Your task to perform on an android device: snooze an email in the gmail app Image 0: 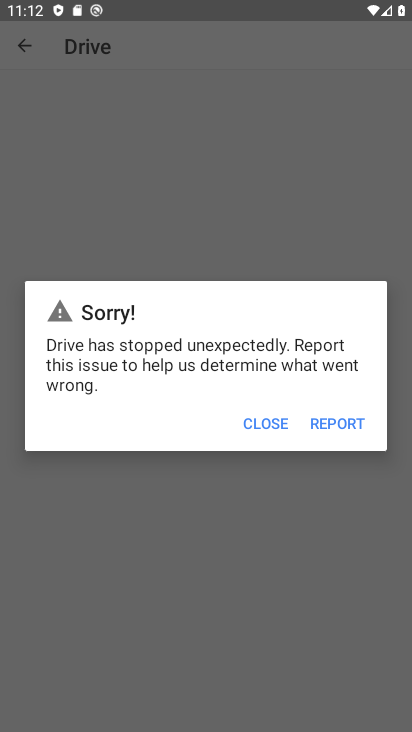
Step 0: click (276, 411)
Your task to perform on an android device: snooze an email in the gmail app Image 1: 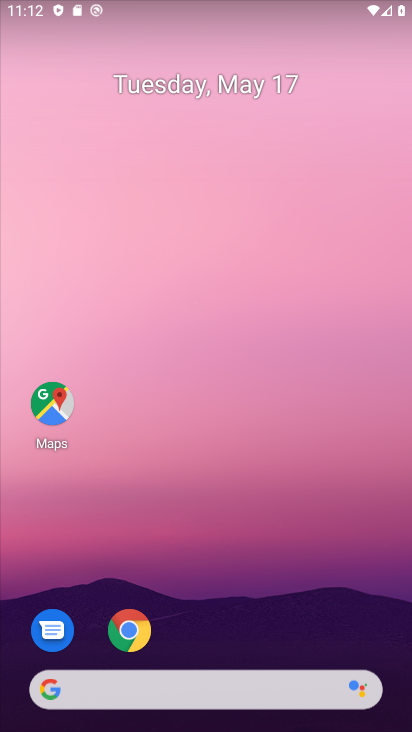
Step 1: drag from (206, 649) to (299, 71)
Your task to perform on an android device: snooze an email in the gmail app Image 2: 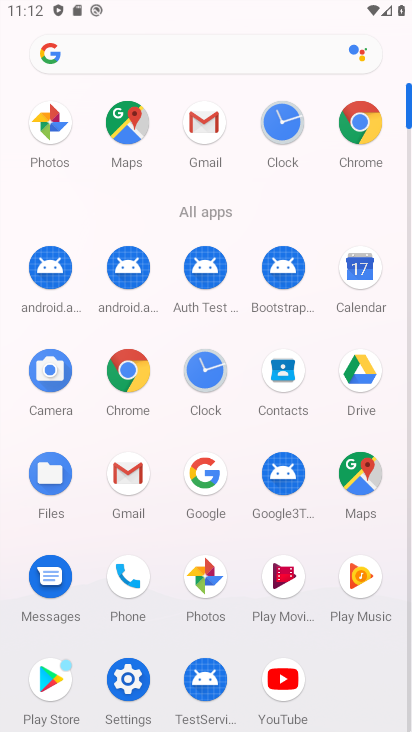
Step 2: click (132, 479)
Your task to perform on an android device: snooze an email in the gmail app Image 3: 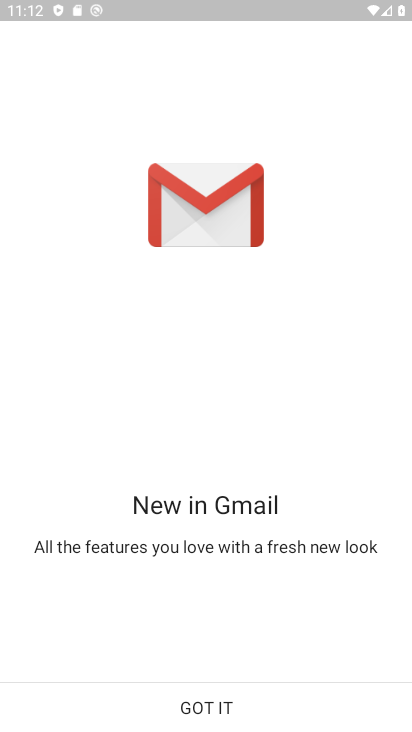
Step 3: click (189, 712)
Your task to perform on an android device: snooze an email in the gmail app Image 4: 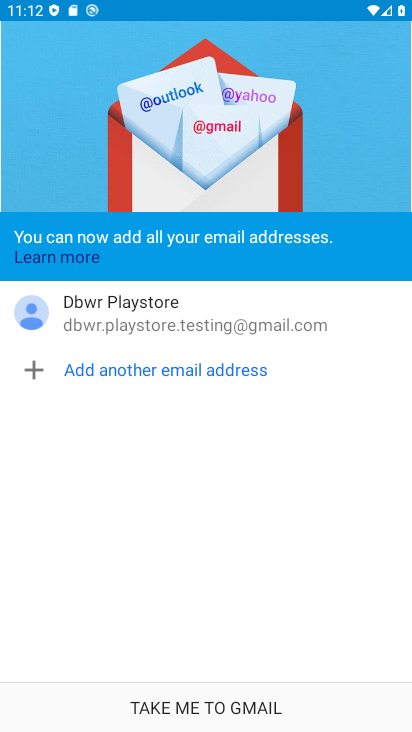
Step 4: click (186, 702)
Your task to perform on an android device: snooze an email in the gmail app Image 5: 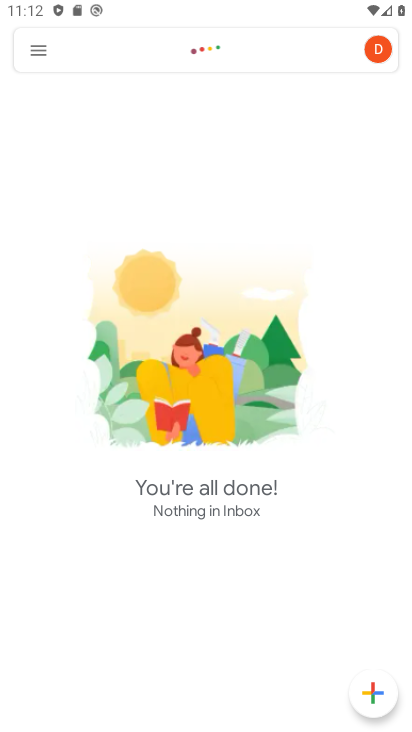
Step 5: click (29, 45)
Your task to perform on an android device: snooze an email in the gmail app Image 6: 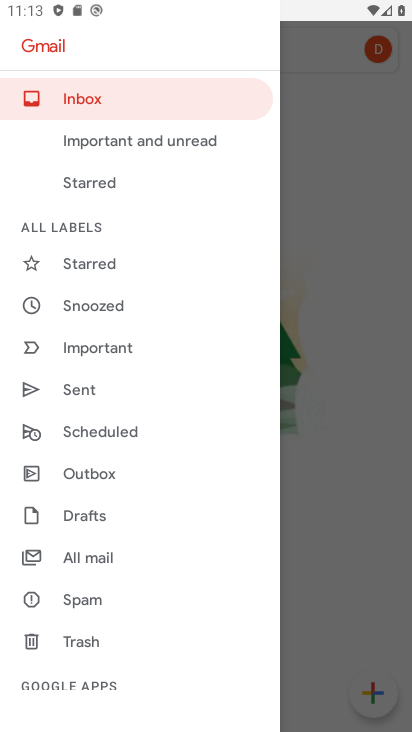
Step 6: click (75, 562)
Your task to perform on an android device: snooze an email in the gmail app Image 7: 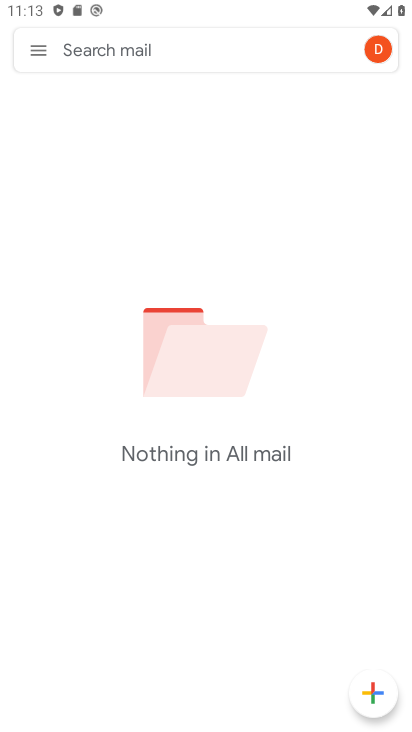
Step 7: task complete